Your task to perform on an android device: Open wifi settings Image 0: 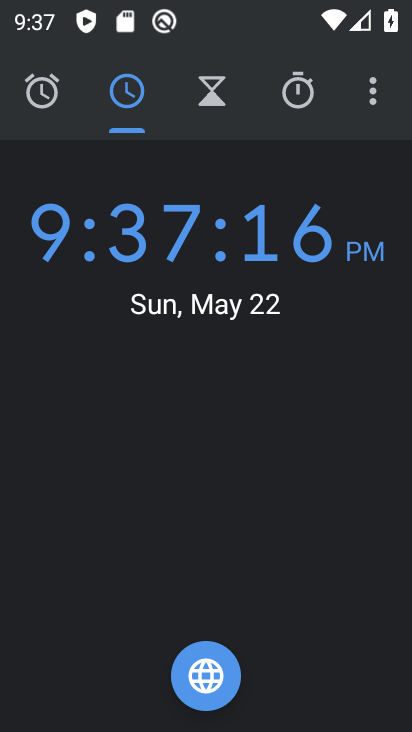
Step 0: press home button
Your task to perform on an android device: Open wifi settings Image 1: 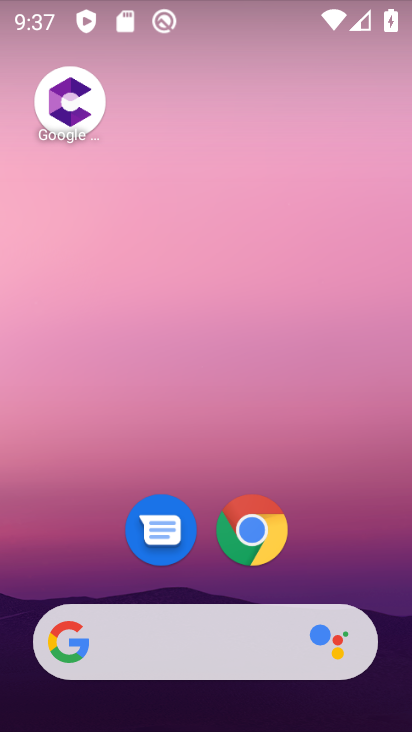
Step 1: drag from (370, 541) to (303, 55)
Your task to perform on an android device: Open wifi settings Image 2: 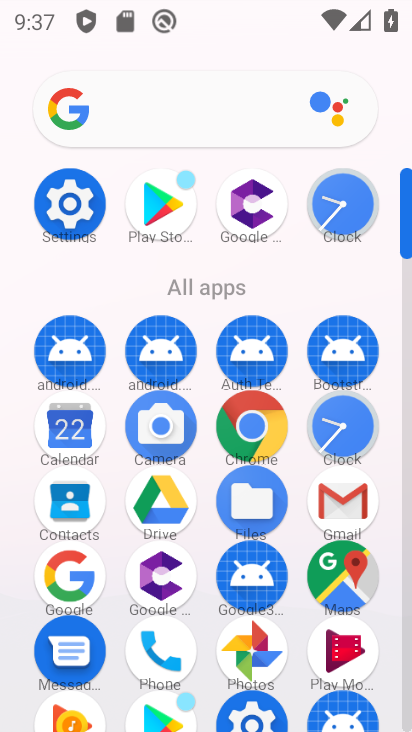
Step 2: click (72, 192)
Your task to perform on an android device: Open wifi settings Image 3: 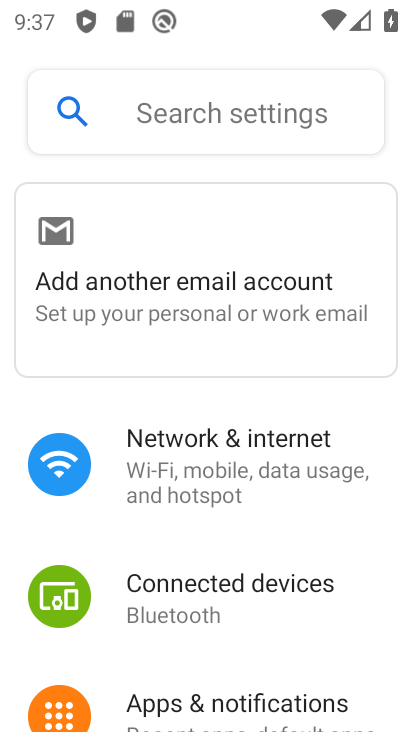
Step 3: click (264, 479)
Your task to perform on an android device: Open wifi settings Image 4: 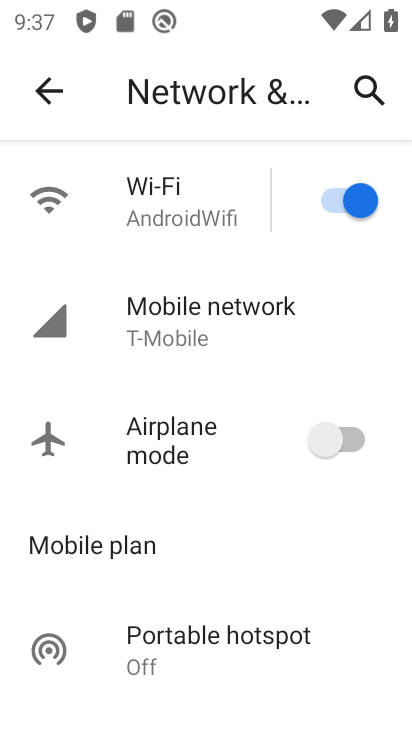
Step 4: click (179, 205)
Your task to perform on an android device: Open wifi settings Image 5: 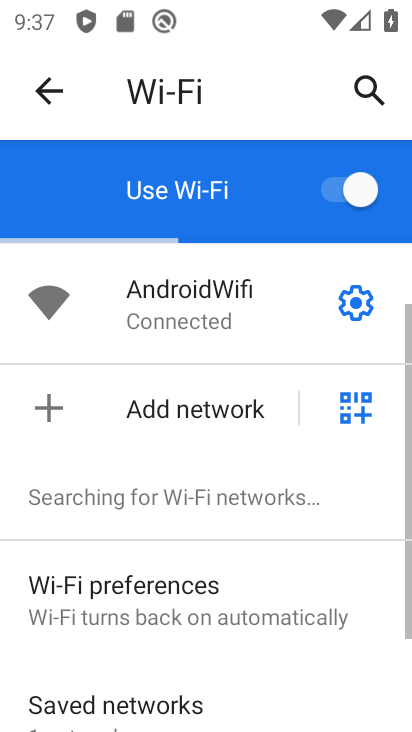
Step 5: task complete